Your task to perform on an android device: Open Google Chrome and open the bookmarks view Image 0: 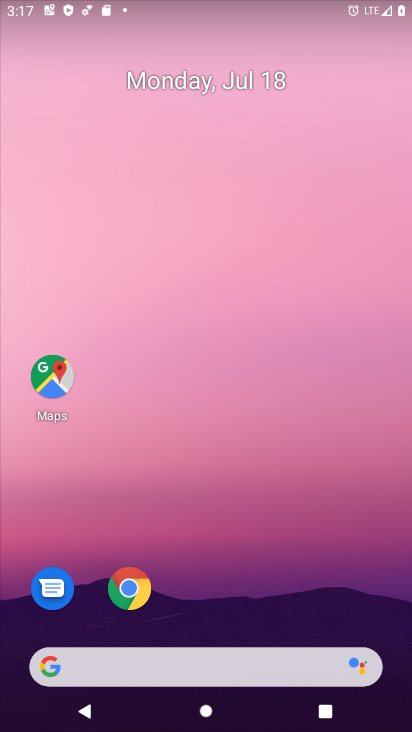
Step 0: click (138, 591)
Your task to perform on an android device: Open Google Chrome and open the bookmarks view Image 1: 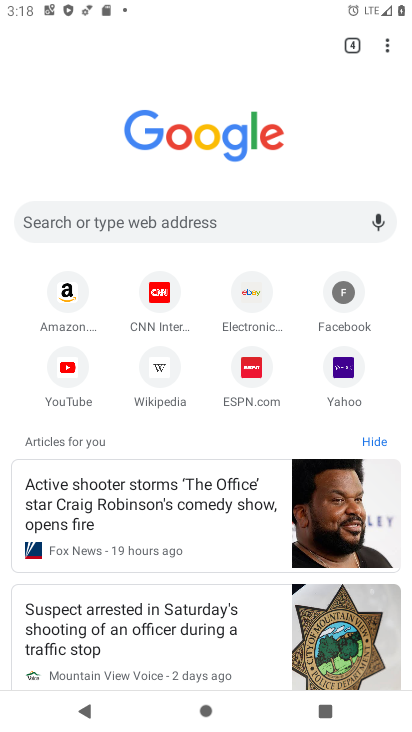
Step 1: task complete